Your task to perform on an android device: open the mobile data screen to see how much data has been used Image 0: 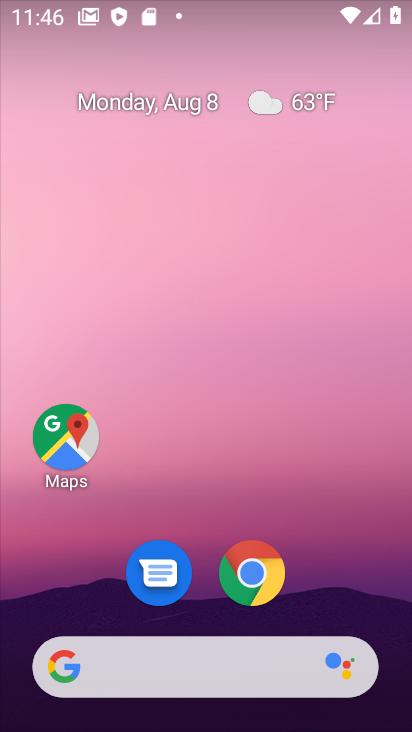
Step 0: drag from (206, 688) to (169, 205)
Your task to perform on an android device: open the mobile data screen to see how much data has been used Image 1: 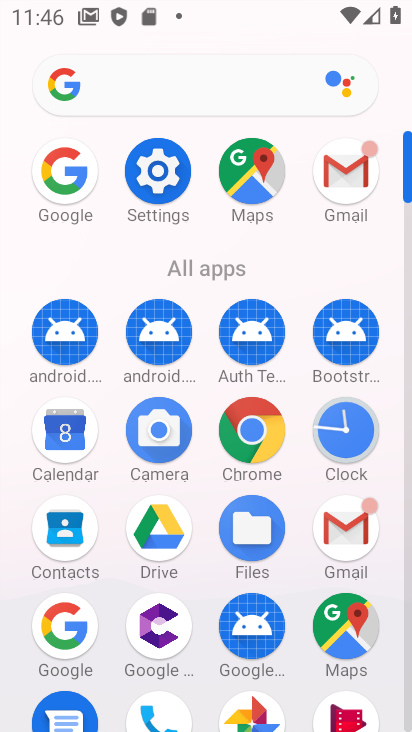
Step 1: click (154, 186)
Your task to perform on an android device: open the mobile data screen to see how much data has been used Image 2: 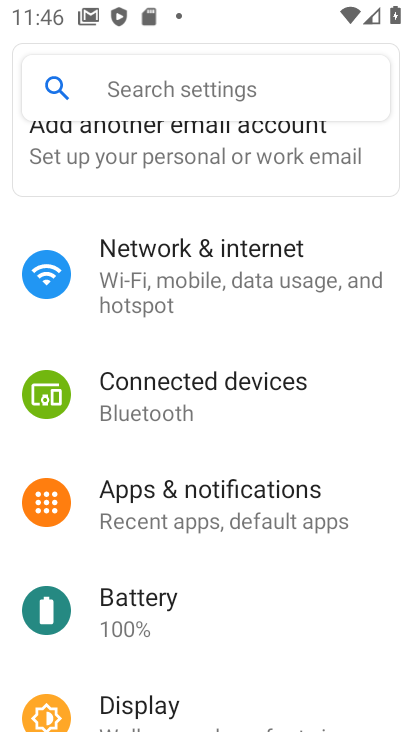
Step 2: click (223, 249)
Your task to perform on an android device: open the mobile data screen to see how much data has been used Image 3: 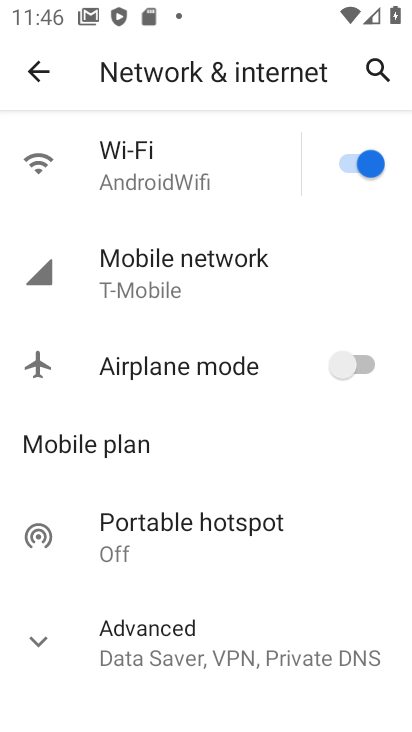
Step 3: click (223, 249)
Your task to perform on an android device: open the mobile data screen to see how much data has been used Image 4: 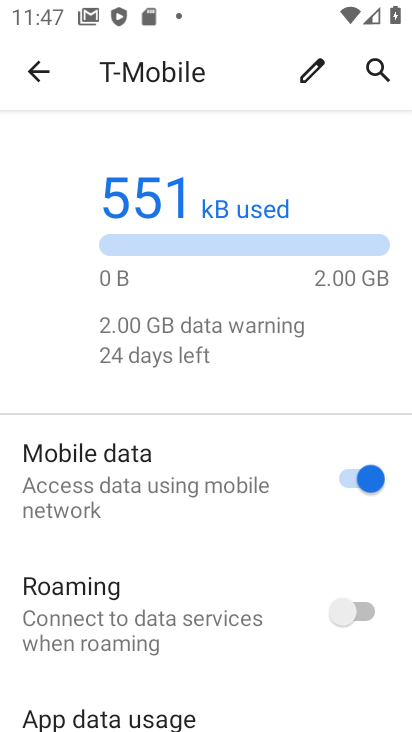
Step 4: task complete